Your task to perform on an android device: find photos in the google photos app Image 0: 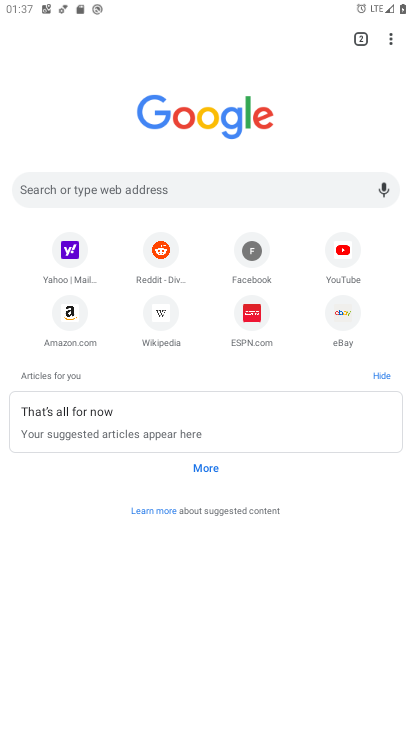
Step 0: press home button
Your task to perform on an android device: find photos in the google photos app Image 1: 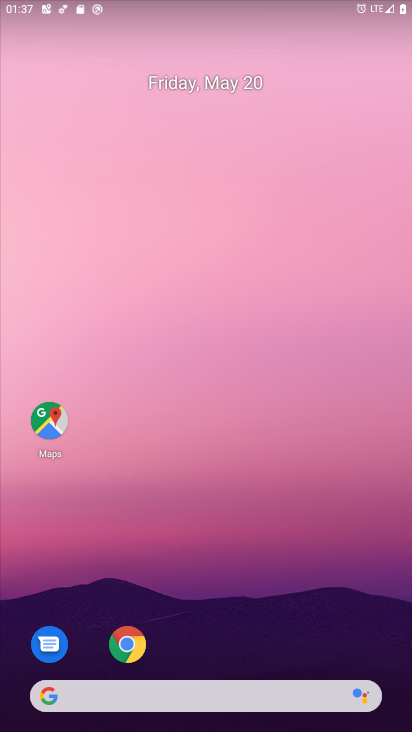
Step 1: drag from (144, 671) to (227, 329)
Your task to perform on an android device: find photos in the google photos app Image 2: 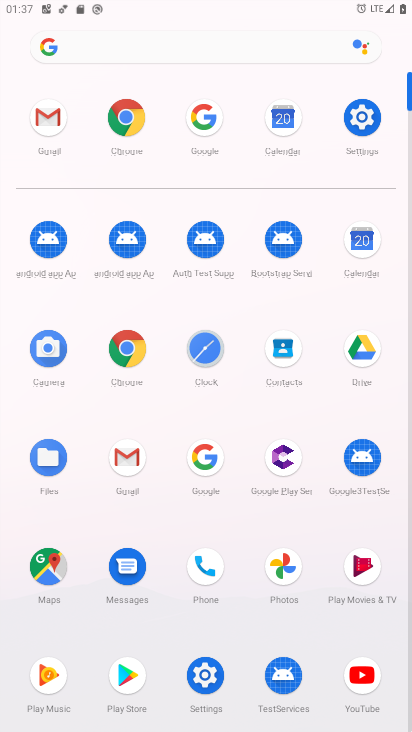
Step 2: click (287, 570)
Your task to perform on an android device: find photos in the google photos app Image 3: 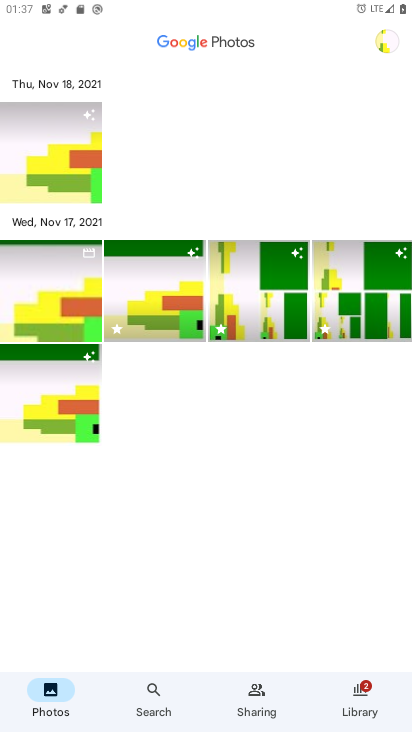
Step 3: click (145, 696)
Your task to perform on an android device: find photos in the google photos app Image 4: 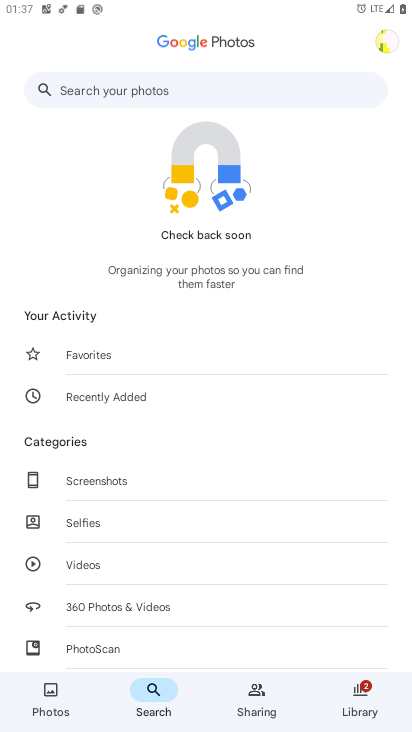
Step 4: click (124, 85)
Your task to perform on an android device: find photos in the google photos app Image 5: 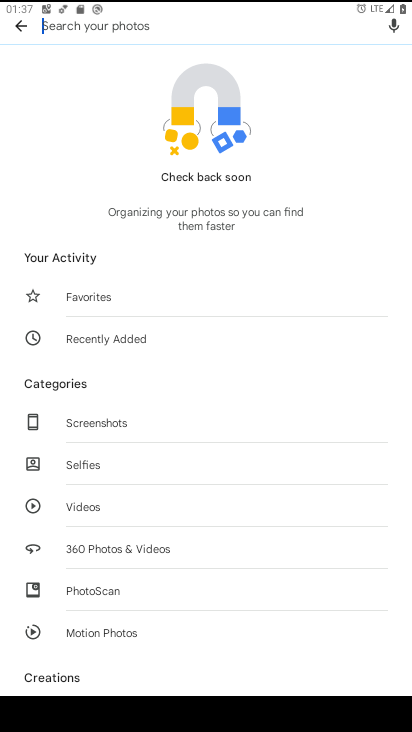
Step 5: type "album 09"
Your task to perform on an android device: find photos in the google photos app Image 6: 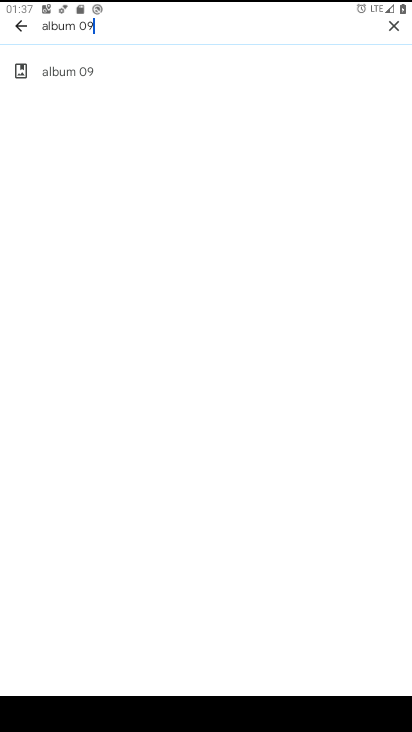
Step 6: click (90, 79)
Your task to perform on an android device: find photos in the google photos app Image 7: 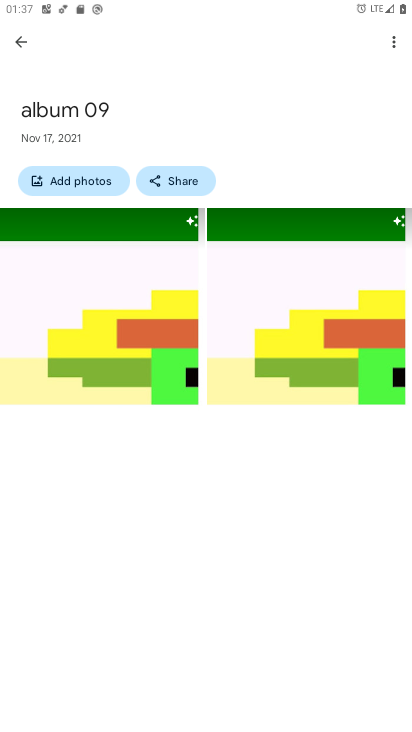
Step 7: task complete